Your task to perform on an android device: turn on bluetooth scan Image 0: 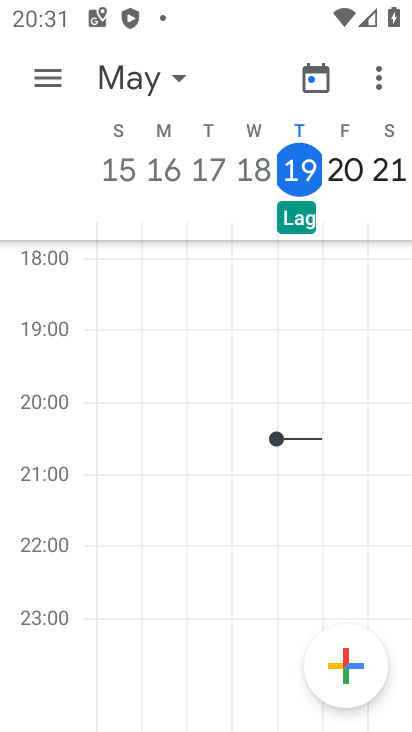
Step 0: press home button
Your task to perform on an android device: turn on bluetooth scan Image 1: 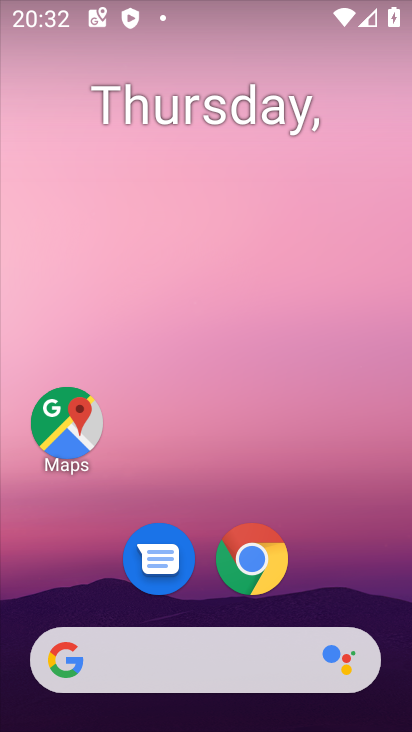
Step 1: drag from (201, 674) to (243, 247)
Your task to perform on an android device: turn on bluetooth scan Image 2: 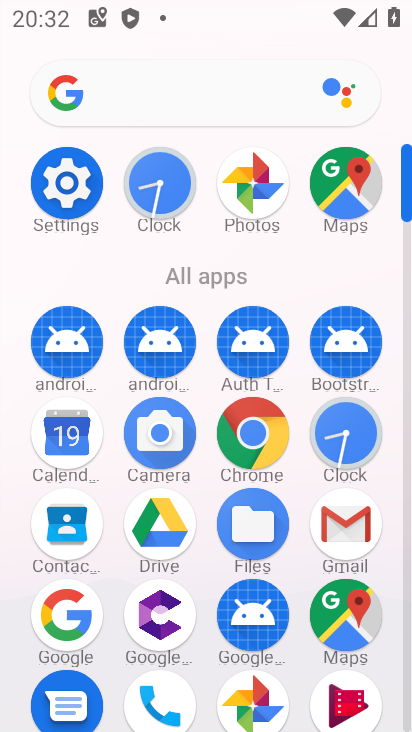
Step 2: click (58, 186)
Your task to perform on an android device: turn on bluetooth scan Image 3: 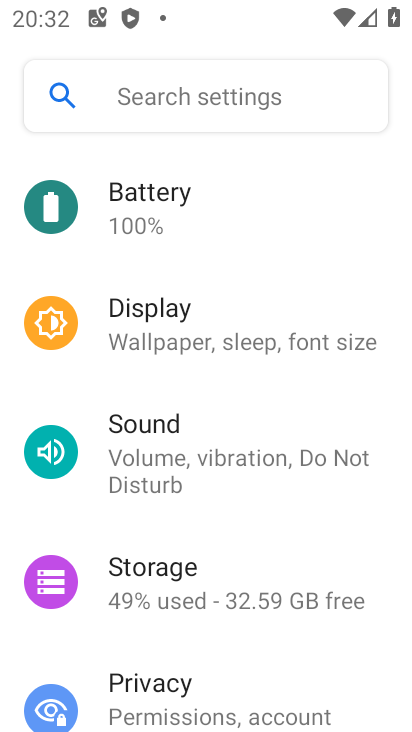
Step 3: drag from (132, 507) to (176, 99)
Your task to perform on an android device: turn on bluetooth scan Image 4: 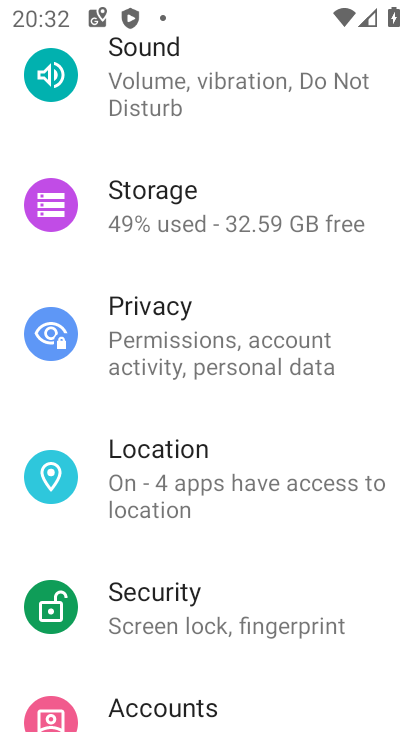
Step 4: click (148, 460)
Your task to perform on an android device: turn on bluetooth scan Image 5: 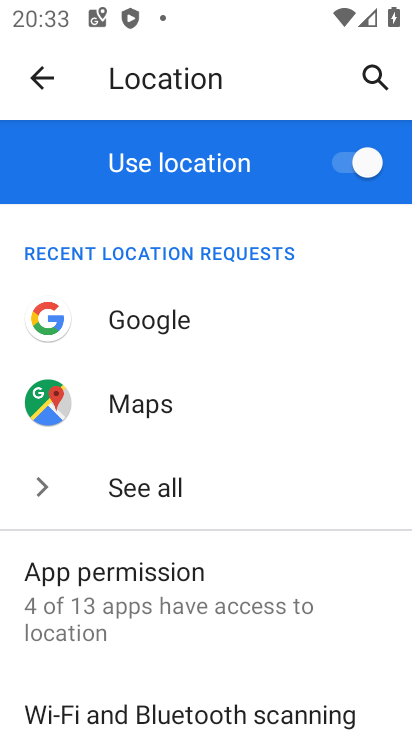
Step 5: click (199, 714)
Your task to perform on an android device: turn on bluetooth scan Image 6: 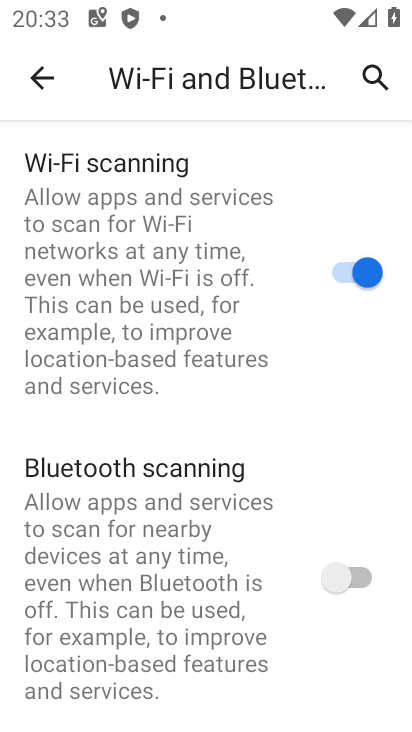
Step 6: click (352, 583)
Your task to perform on an android device: turn on bluetooth scan Image 7: 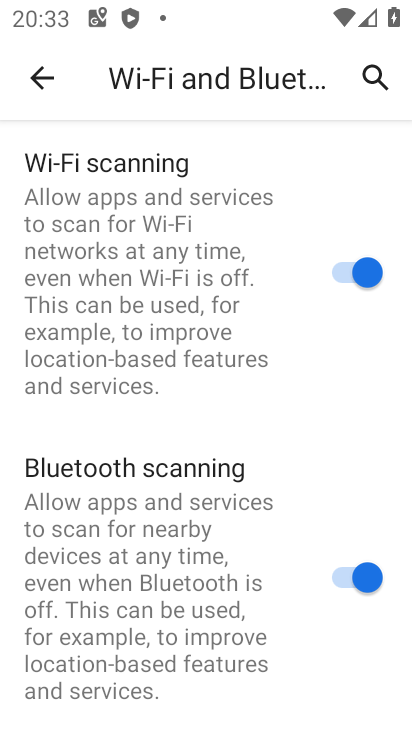
Step 7: task complete